Your task to perform on an android device: check battery use Image 0: 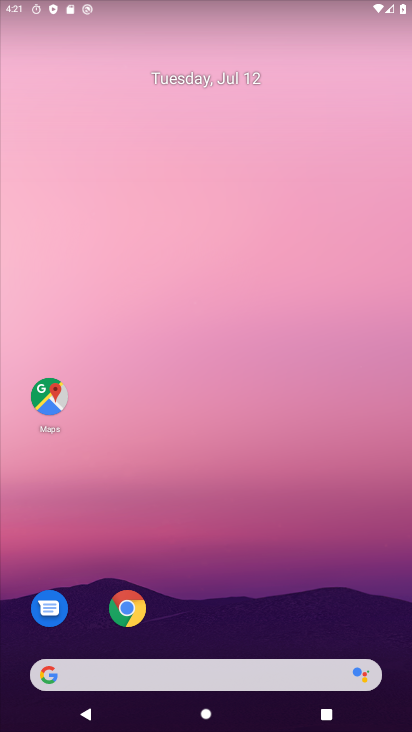
Step 0: drag from (282, 593) to (324, 27)
Your task to perform on an android device: check battery use Image 1: 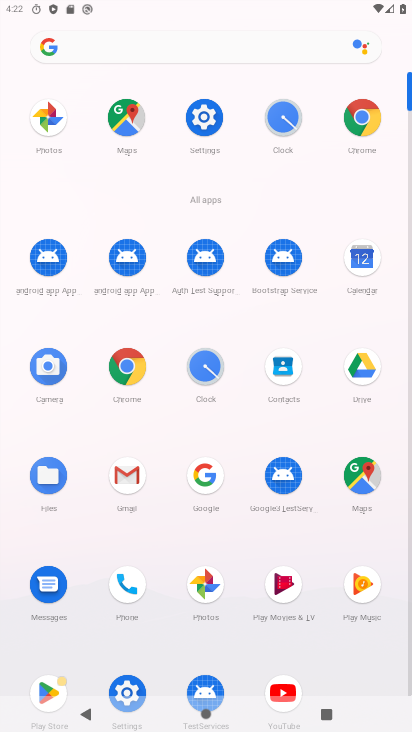
Step 1: click (204, 114)
Your task to perform on an android device: check battery use Image 2: 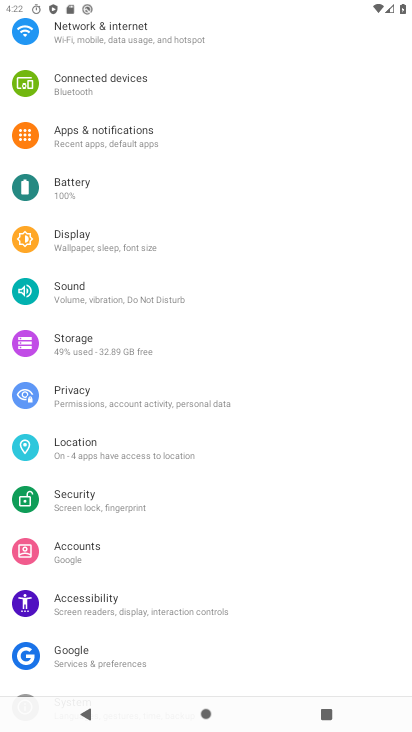
Step 2: click (118, 187)
Your task to perform on an android device: check battery use Image 3: 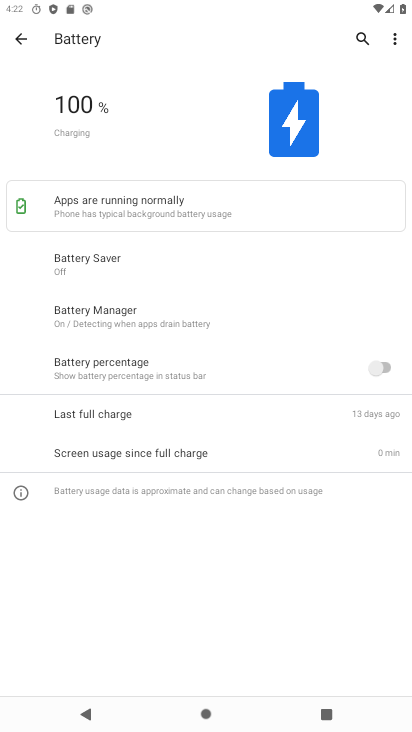
Step 3: click (396, 37)
Your task to perform on an android device: check battery use Image 4: 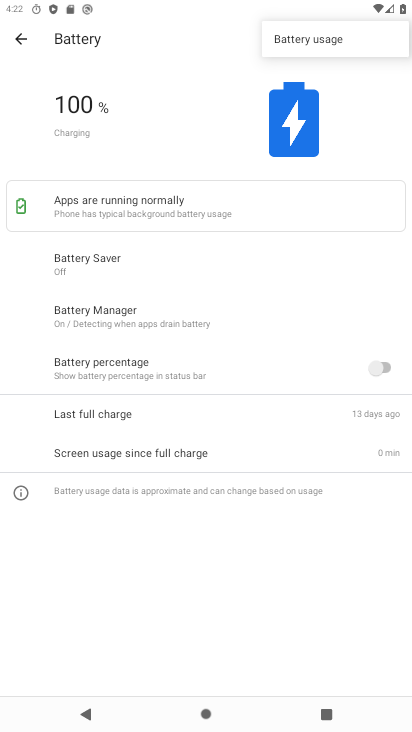
Step 4: click (317, 40)
Your task to perform on an android device: check battery use Image 5: 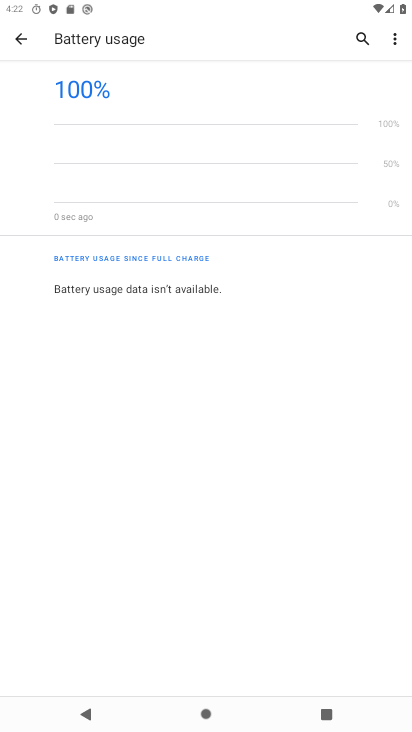
Step 5: click (389, 41)
Your task to perform on an android device: check battery use Image 6: 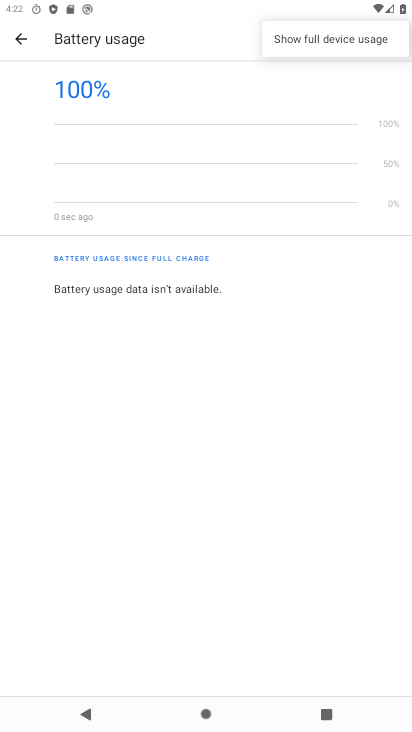
Step 6: click (343, 41)
Your task to perform on an android device: check battery use Image 7: 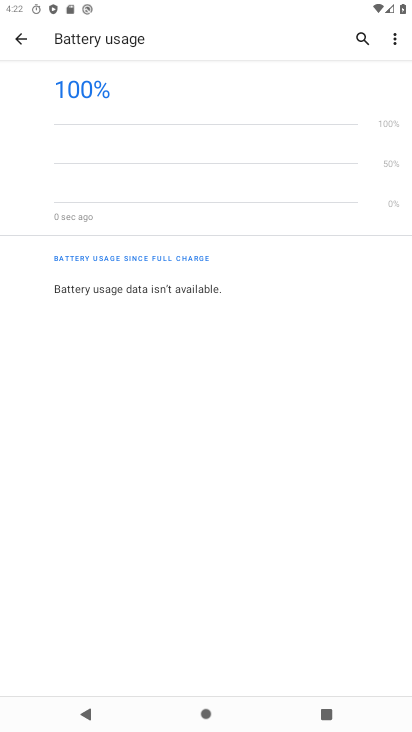
Step 7: task complete